Your task to perform on an android device: turn on the 24-hour format for clock Image 0: 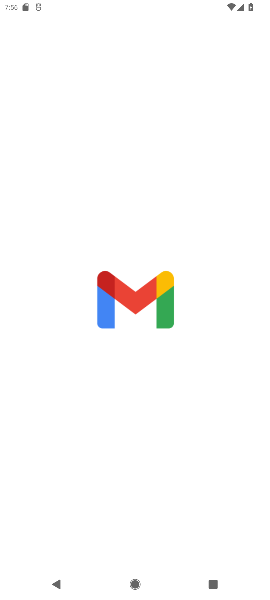
Step 0: press home button
Your task to perform on an android device: turn on the 24-hour format for clock Image 1: 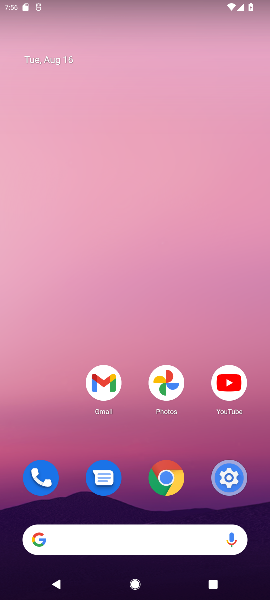
Step 1: drag from (128, 445) to (153, 20)
Your task to perform on an android device: turn on the 24-hour format for clock Image 2: 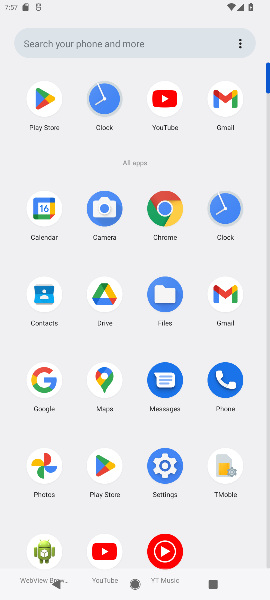
Step 2: click (221, 204)
Your task to perform on an android device: turn on the 24-hour format for clock Image 3: 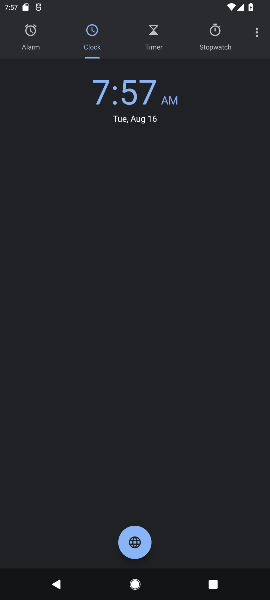
Step 3: click (253, 33)
Your task to perform on an android device: turn on the 24-hour format for clock Image 4: 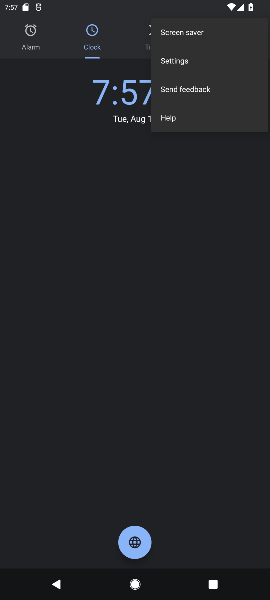
Step 4: click (200, 60)
Your task to perform on an android device: turn on the 24-hour format for clock Image 5: 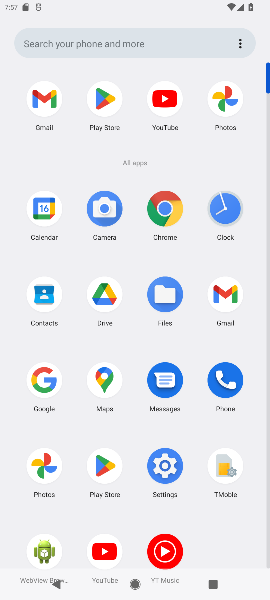
Step 5: click (222, 204)
Your task to perform on an android device: turn on the 24-hour format for clock Image 6: 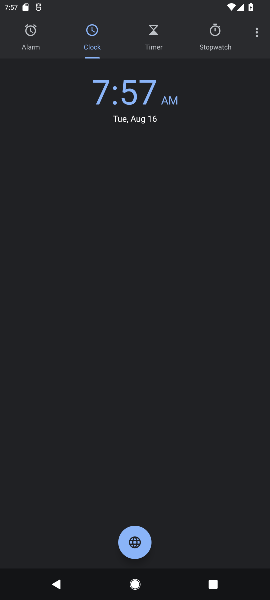
Step 6: click (256, 36)
Your task to perform on an android device: turn on the 24-hour format for clock Image 7: 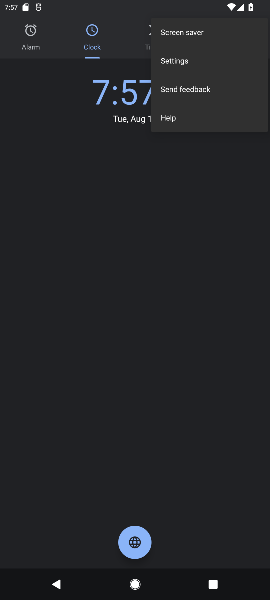
Step 7: click (193, 60)
Your task to perform on an android device: turn on the 24-hour format for clock Image 8: 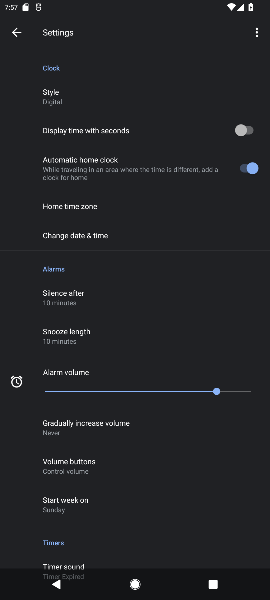
Step 8: click (116, 237)
Your task to perform on an android device: turn on the 24-hour format for clock Image 9: 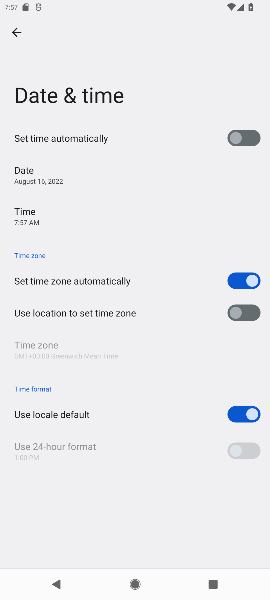
Step 9: click (238, 410)
Your task to perform on an android device: turn on the 24-hour format for clock Image 10: 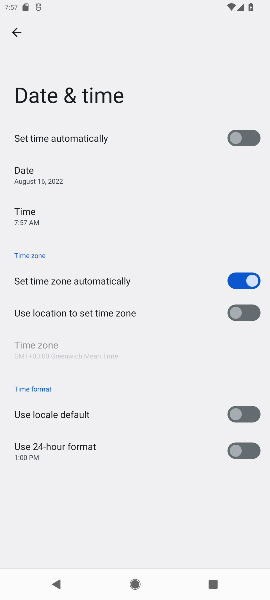
Step 10: click (246, 447)
Your task to perform on an android device: turn on the 24-hour format for clock Image 11: 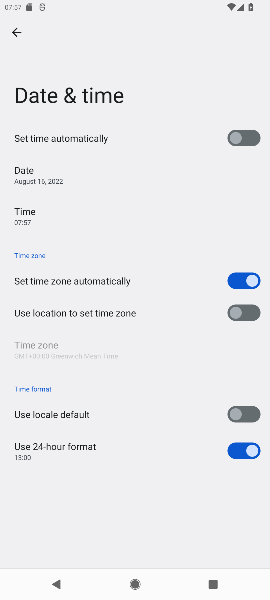
Step 11: task complete